Your task to perform on an android device: Go to internet settings Image 0: 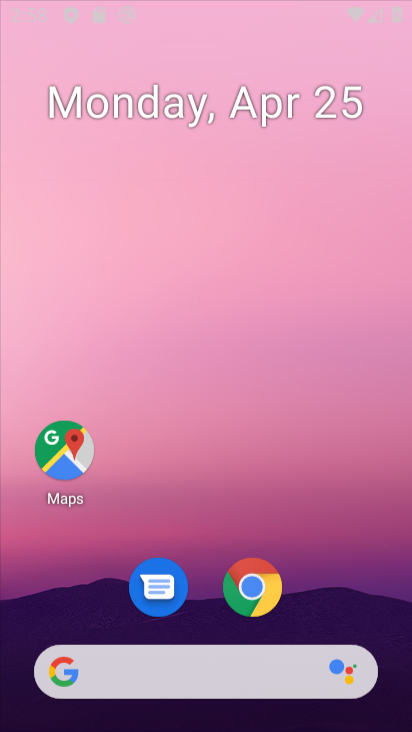
Step 0: press back button
Your task to perform on an android device: Go to internet settings Image 1: 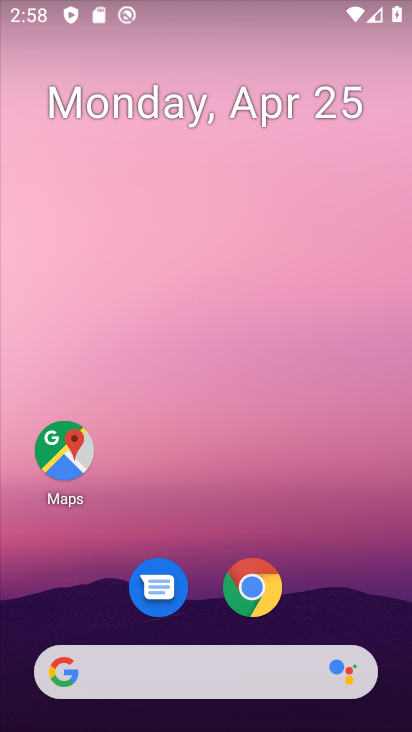
Step 1: drag from (316, 632) to (368, 49)
Your task to perform on an android device: Go to internet settings Image 2: 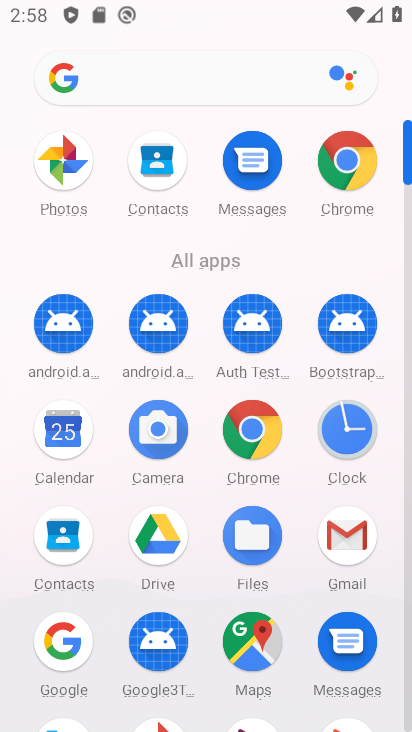
Step 2: drag from (242, 463) to (338, 81)
Your task to perform on an android device: Go to internet settings Image 3: 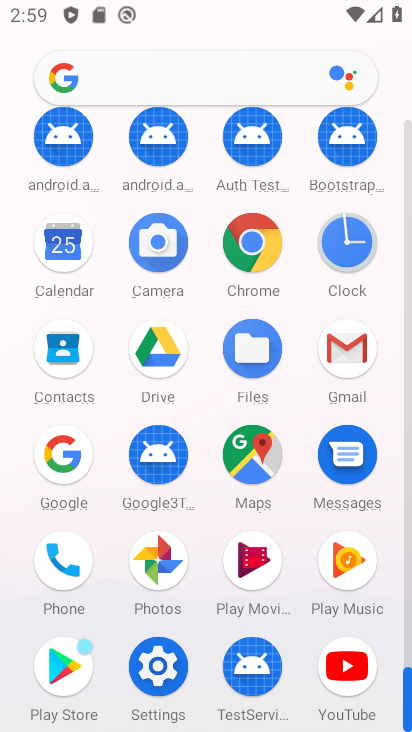
Step 3: click (158, 658)
Your task to perform on an android device: Go to internet settings Image 4: 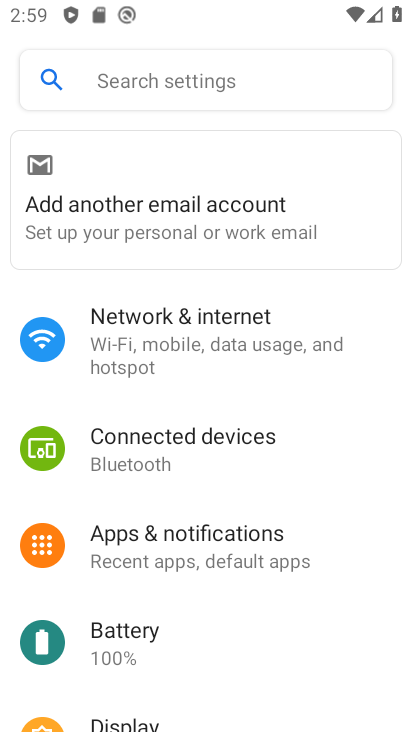
Step 4: click (244, 328)
Your task to perform on an android device: Go to internet settings Image 5: 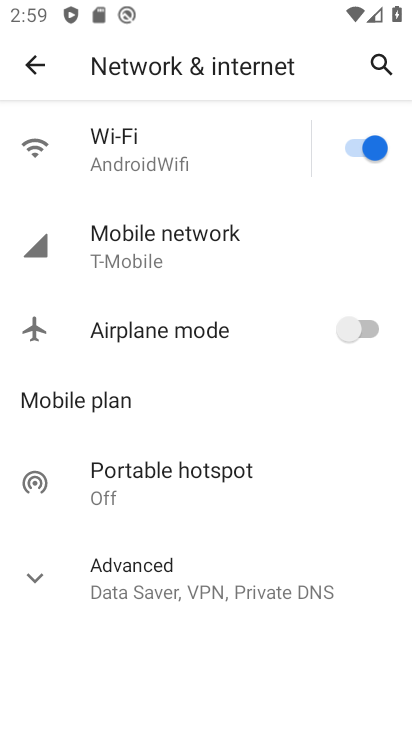
Step 5: click (42, 140)
Your task to perform on an android device: Go to internet settings Image 6: 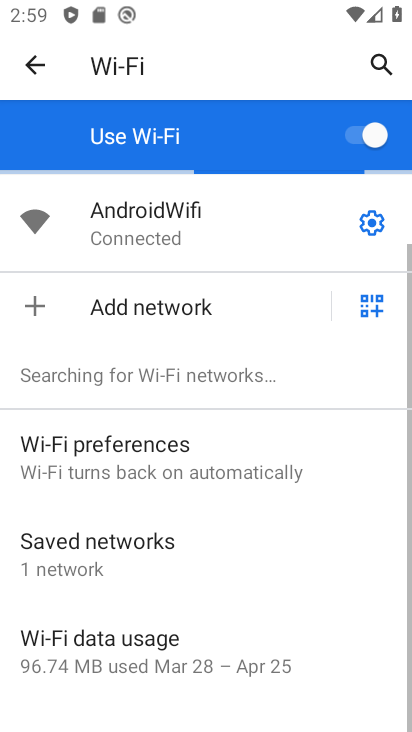
Step 6: task complete